Your task to perform on an android device: Go to battery settings Image 0: 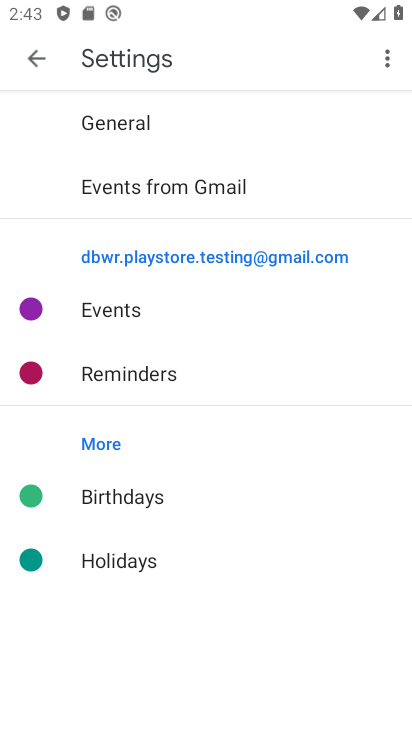
Step 0: press home button
Your task to perform on an android device: Go to battery settings Image 1: 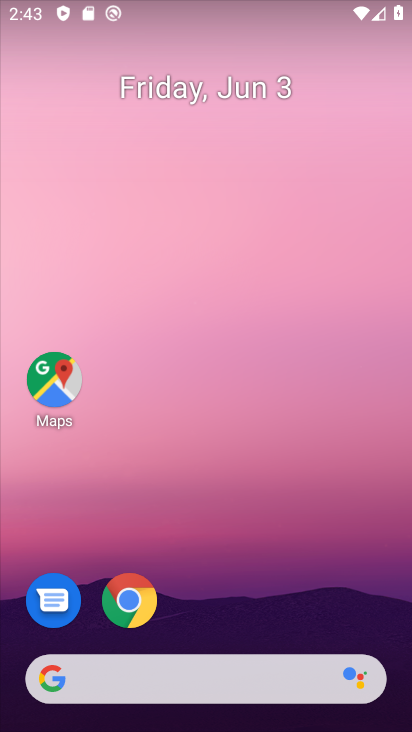
Step 1: drag from (295, 549) to (279, 165)
Your task to perform on an android device: Go to battery settings Image 2: 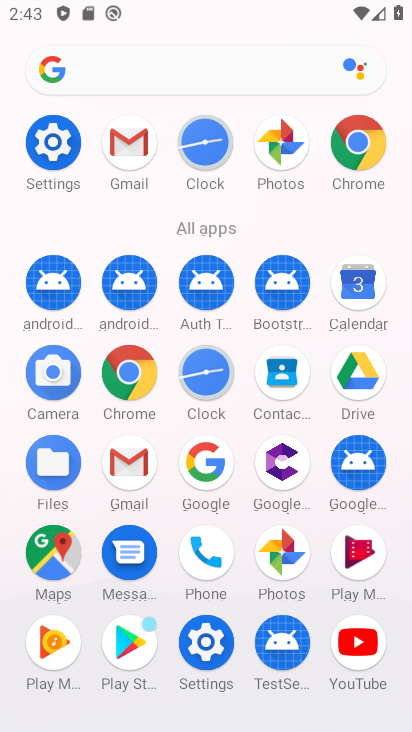
Step 2: click (45, 157)
Your task to perform on an android device: Go to battery settings Image 3: 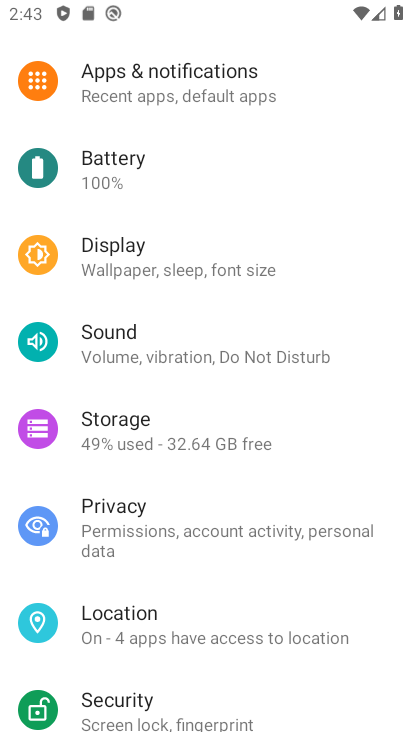
Step 3: click (202, 172)
Your task to perform on an android device: Go to battery settings Image 4: 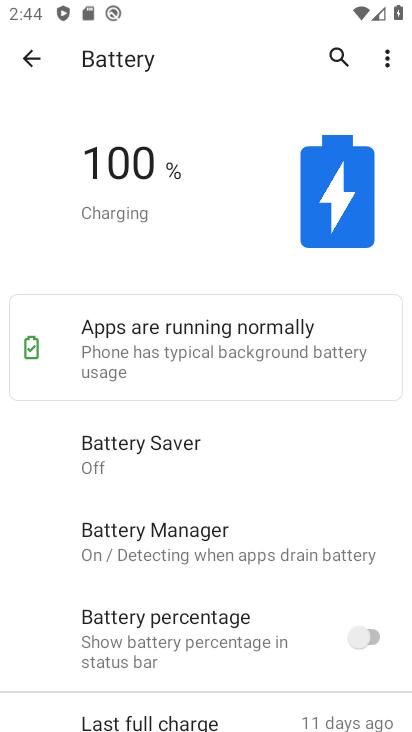
Step 4: task complete